Your task to perform on an android device: Search for vegetarian restaurants on Maps Image 0: 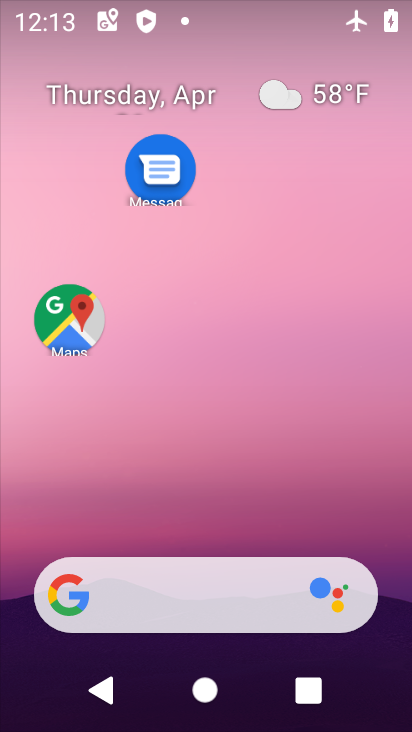
Step 0: drag from (159, 527) to (247, 64)
Your task to perform on an android device: Search for vegetarian restaurants on Maps Image 1: 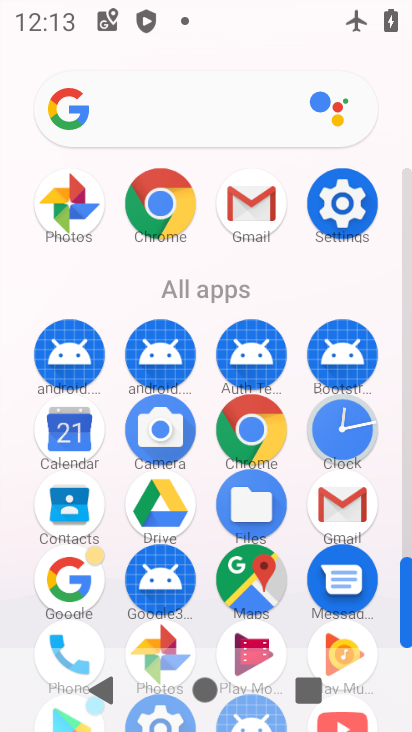
Step 1: click (250, 550)
Your task to perform on an android device: Search for vegetarian restaurants on Maps Image 2: 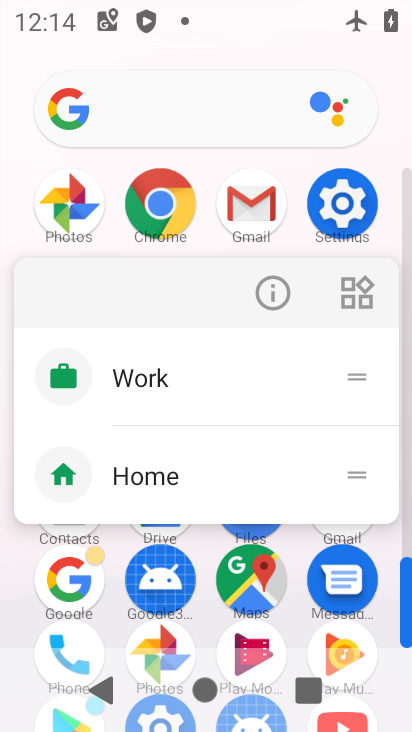
Step 2: click (283, 305)
Your task to perform on an android device: Search for vegetarian restaurants on Maps Image 3: 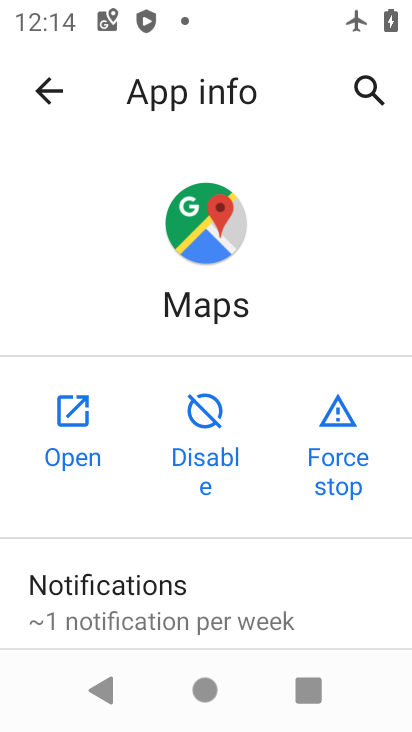
Step 3: click (56, 421)
Your task to perform on an android device: Search for vegetarian restaurants on Maps Image 4: 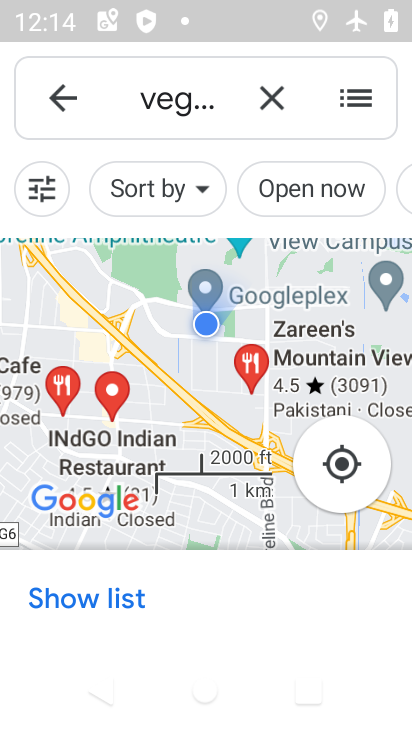
Step 4: task complete